Your task to perform on an android device: turn off location Image 0: 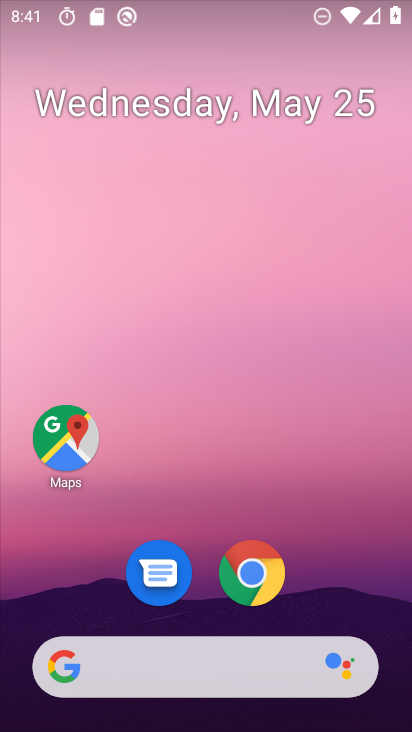
Step 0: drag from (387, 533) to (348, 230)
Your task to perform on an android device: turn off location Image 1: 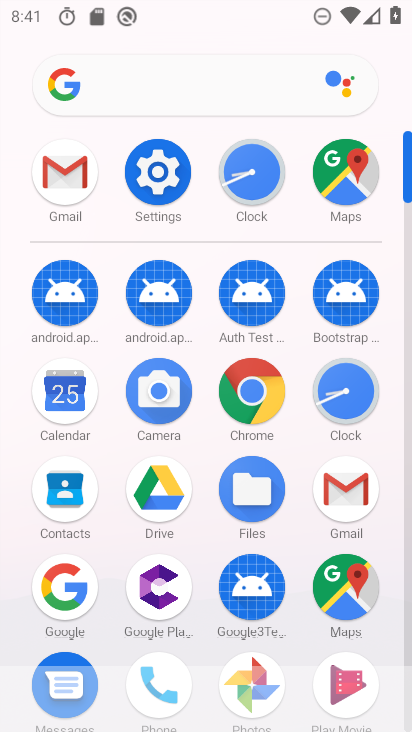
Step 1: click (149, 179)
Your task to perform on an android device: turn off location Image 2: 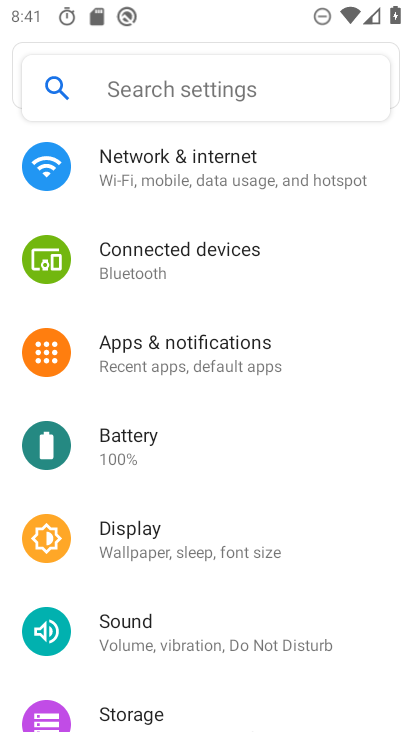
Step 2: drag from (238, 694) to (227, 318)
Your task to perform on an android device: turn off location Image 3: 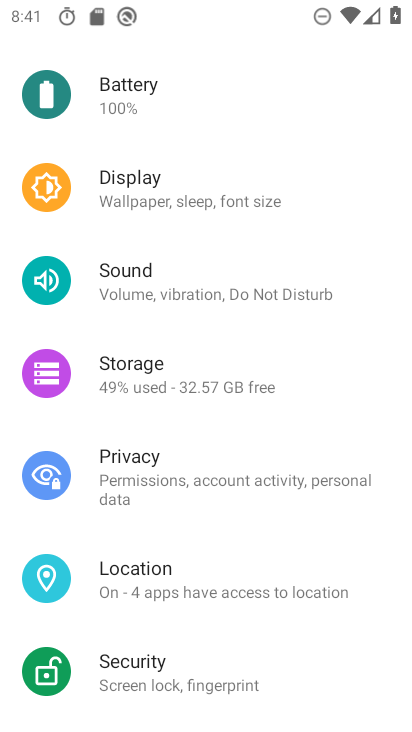
Step 3: click (118, 577)
Your task to perform on an android device: turn off location Image 4: 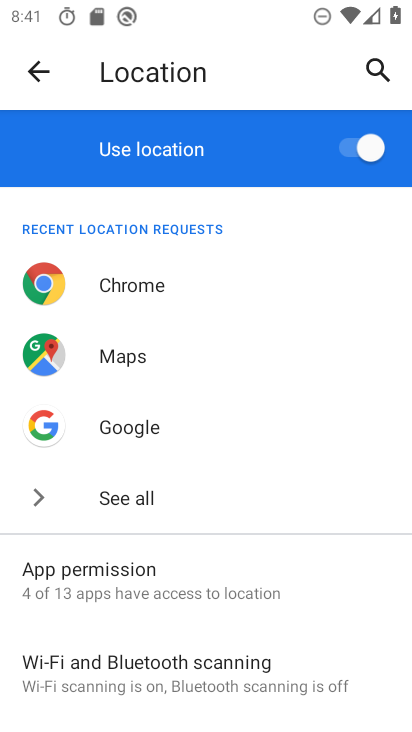
Step 4: click (350, 151)
Your task to perform on an android device: turn off location Image 5: 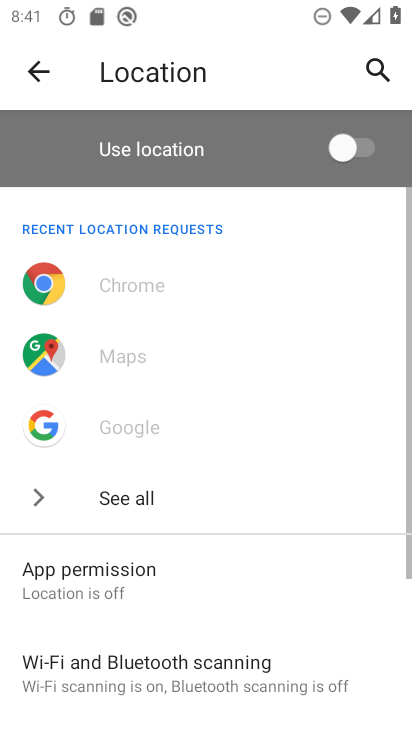
Step 5: task complete